Your task to perform on an android device: Open Google Maps and go to "Timeline" Image 0: 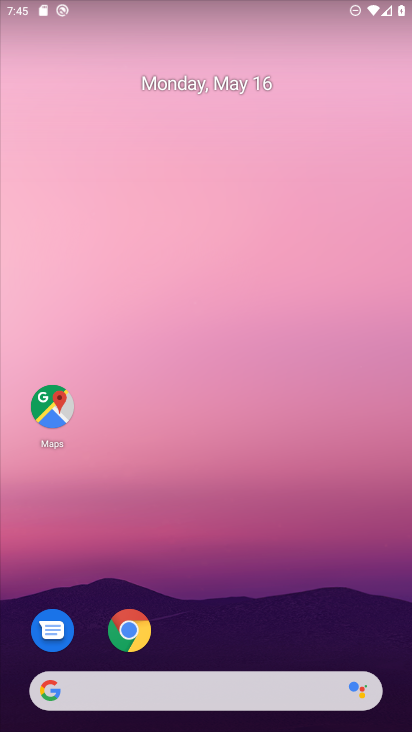
Step 0: click (54, 413)
Your task to perform on an android device: Open Google Maps and go to "Timeline" Image 1: 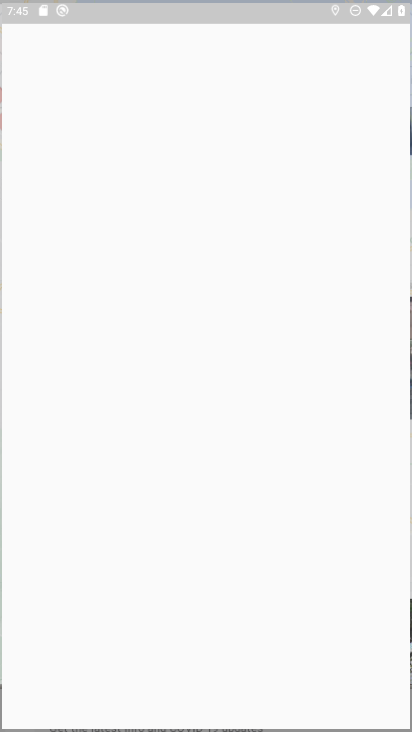
Step 1: click (293, 44)
Your task to perform on an android device: Open Google Maps and go to "Timeline" Image 2: 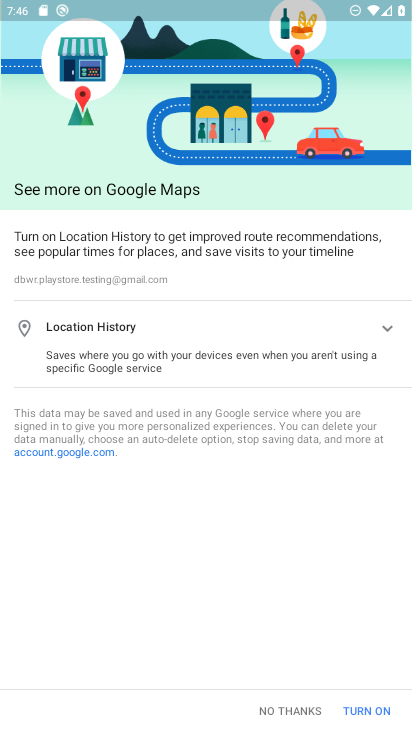
Step 2: press back button
Your task to perform on an android device: Open Google Maps and go to "Timeline" Image 3: 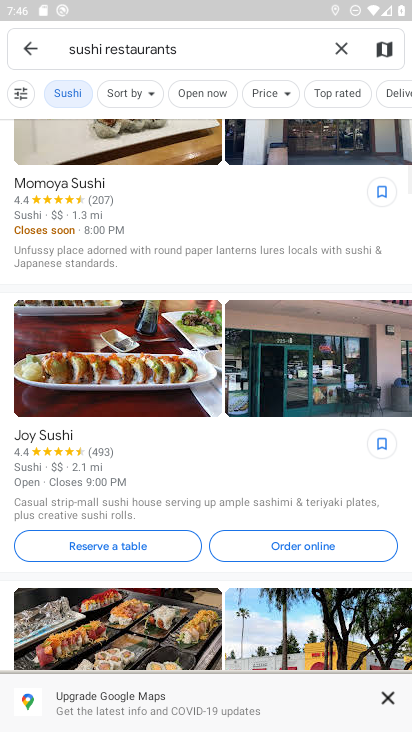
Step 3: click (219, 45)
Your task to perform on an android device: Open Google Maps and go to "Timeline" Image 4: 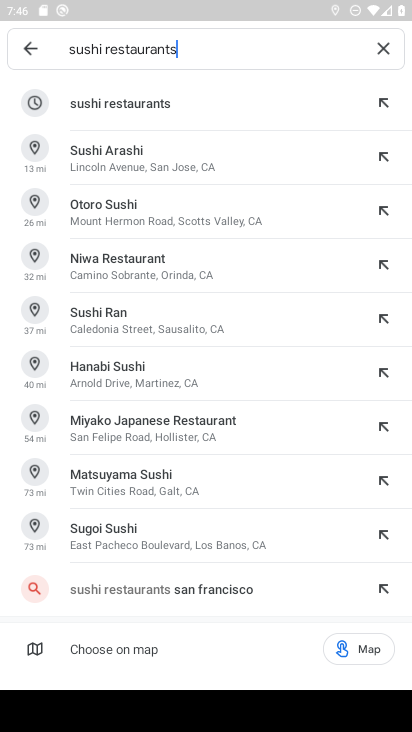
Step 4: click (384, 50)
Your task to perform on an android device: Open Google Maps and go to "Timeline" Image 5: 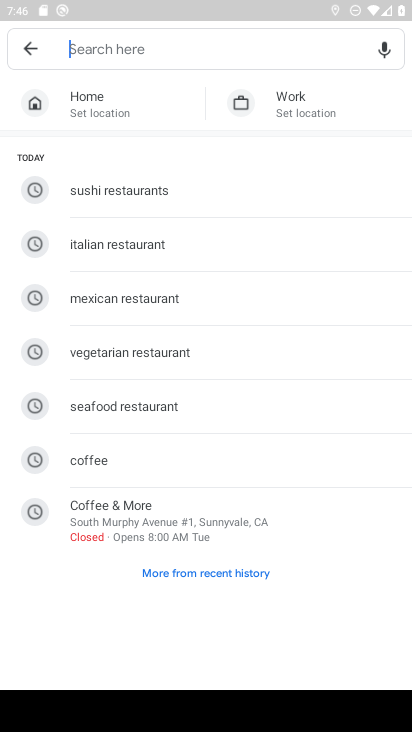
Step 5: type "Timeline"
Your task to perform on an android device: Open Google Maps and go to "Timeline" Image 6: 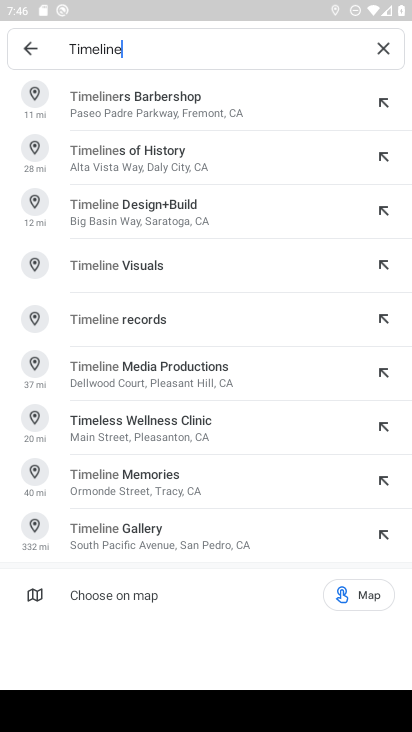
Step 6: type " "
Your task to perform on an android device: Open Google Maps and go to "Timeline" Image 7: 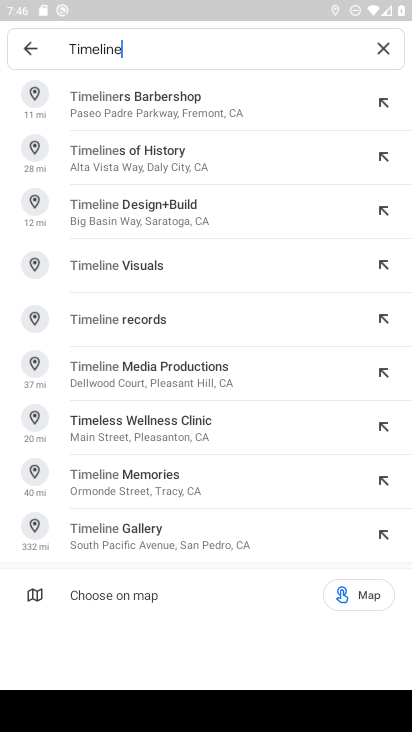
Step 7: click (196, 102)
Your task to perform on an android device: Open Google Maps and go to "Timeline" Image 8: 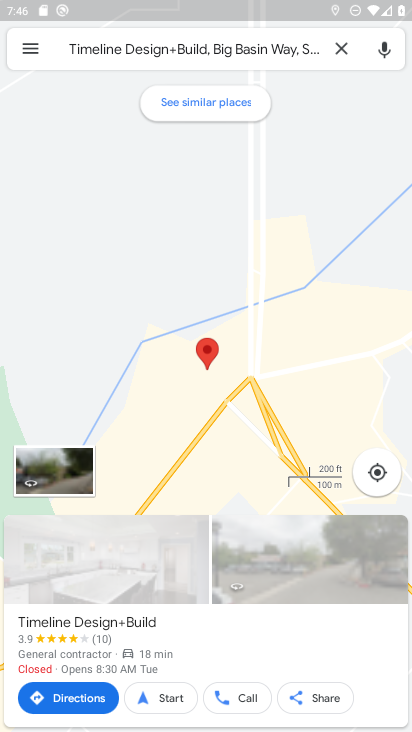
Step 8: click (282, 37)
Your task to perform on an android device: Open Google Maps and go to "Timeline" Image 9: 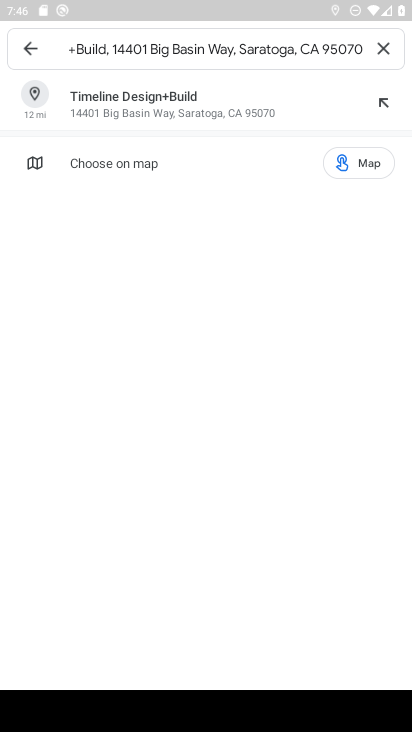
Step 9: drag from (357, 34) to (71, 49)
Your task to perform on an android device: Open Google Maps and go to "Timeline" Image 10: 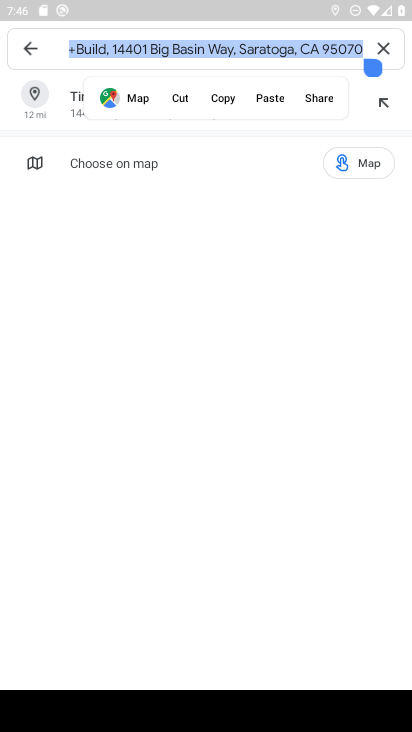
Step 10: click (76, 40)
Your task to perform on an android device: Open Google Maps and go to "Timeline" Image 11: 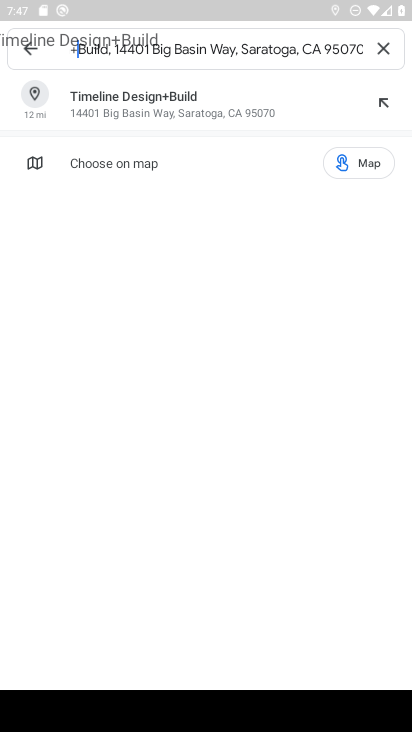
Step 11: click (382, 49)
Your task to perform on an android device: Open Google Maps and go to "Timeline" Image 12: 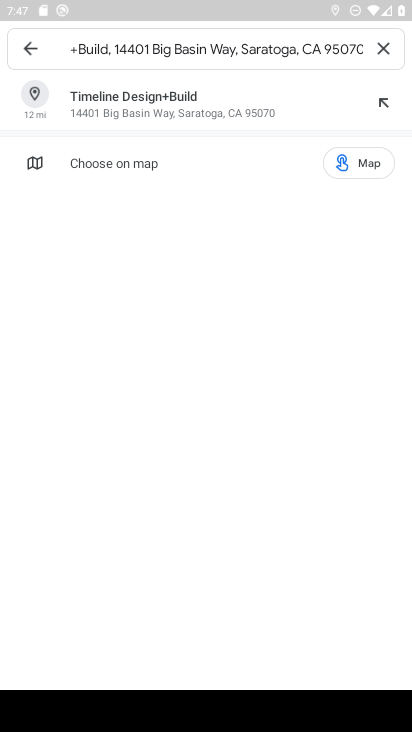
Step 12: click (386, 38)
Your task to perform on an android device: Open Google Maps and go to "Timeline" Image 13: 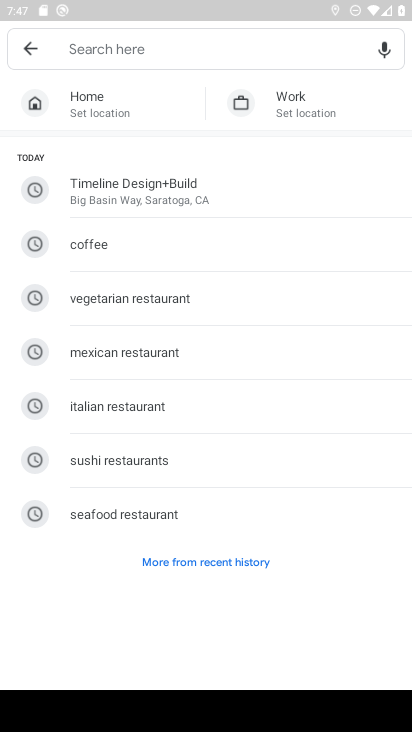
Step 13: click (168, 176)
Your task to perform on an android device: Open Google Maps and go to "Timeline" Image 14: 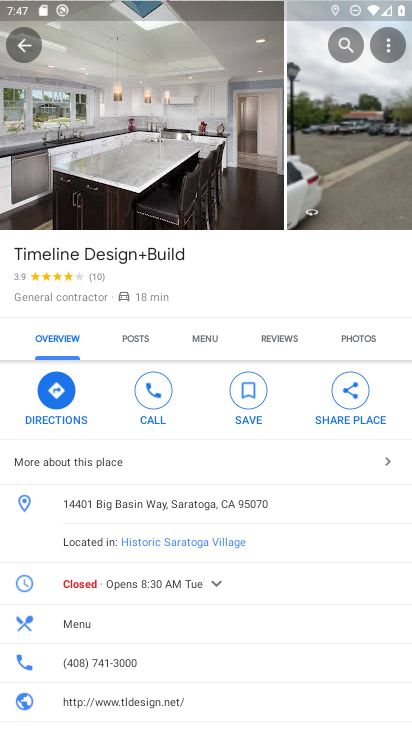
Step 14: task complete